Your task to perform on an android device: Go to Maps Image 0: 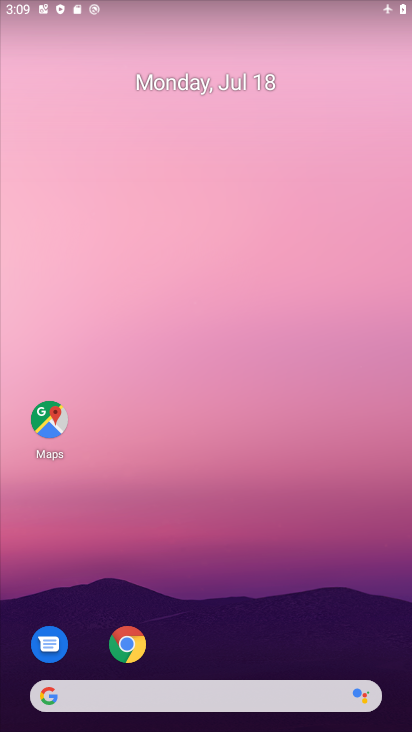
Step 0: click (49, 420)
Your task to perform on an android device: Go to Maps Image 1: 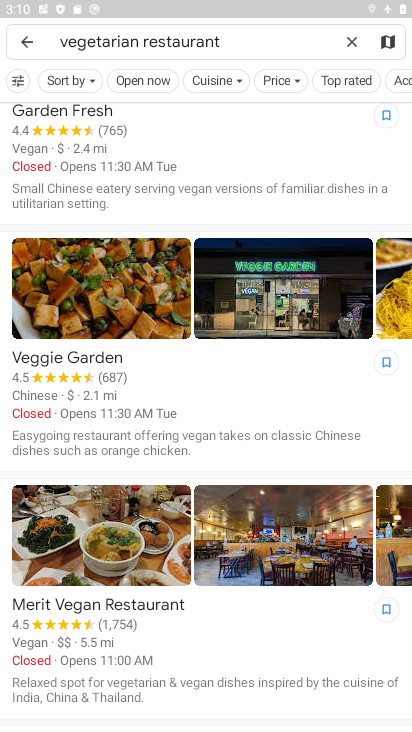
Step 1: click (349, 39)
Your task to perform on an android device: Go to Maps Image 2: 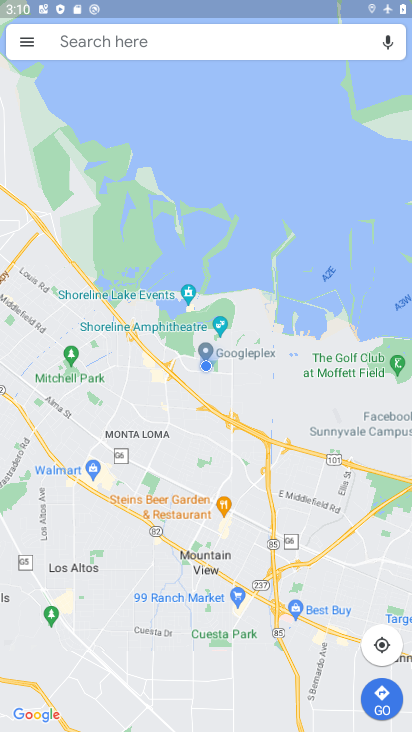
Step 2: task complete